Your task to perform on an android device: Open maps Image 0: 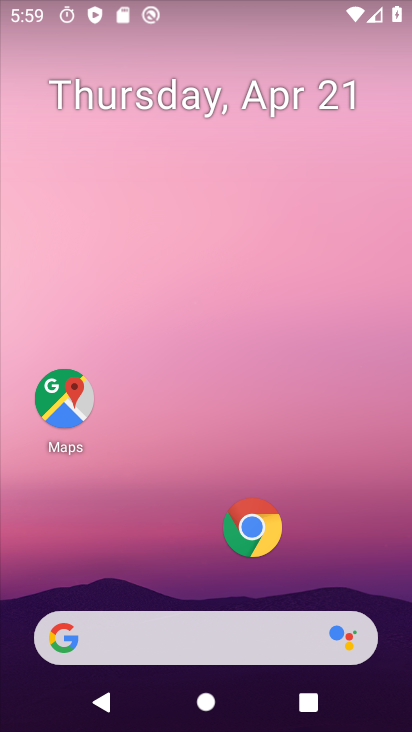
Step 0: click (71, 405)
Your task to perform on an android device: Open maps Image 1: 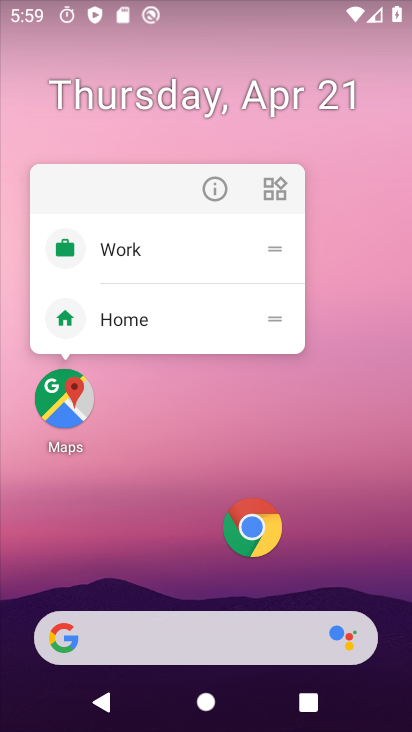
Step 1: click (71, 405)
Your task to perform on an android device: Open maps Image 2: 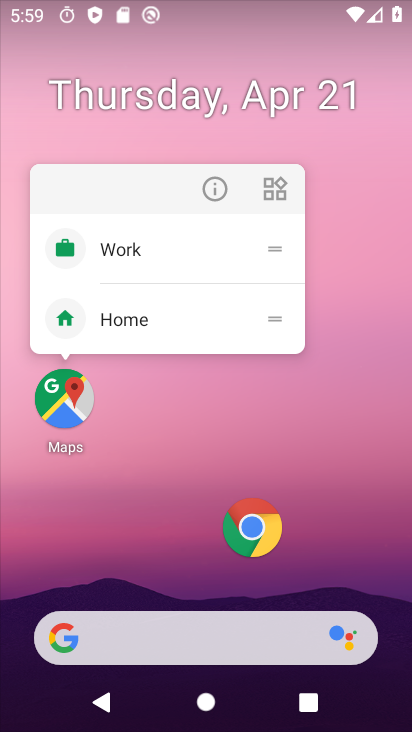
Step 2: click (51, 388)
Your task to perform on an android device: Open maps Image 3: 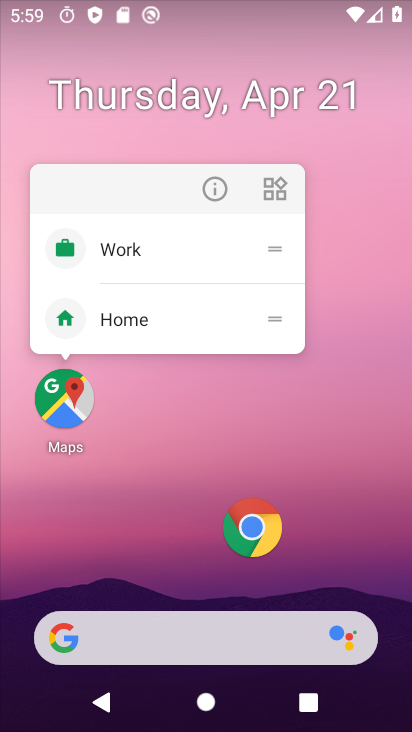
Step 3: click (55, 402)
Your task to perform on an android device: Open maps Image 4: 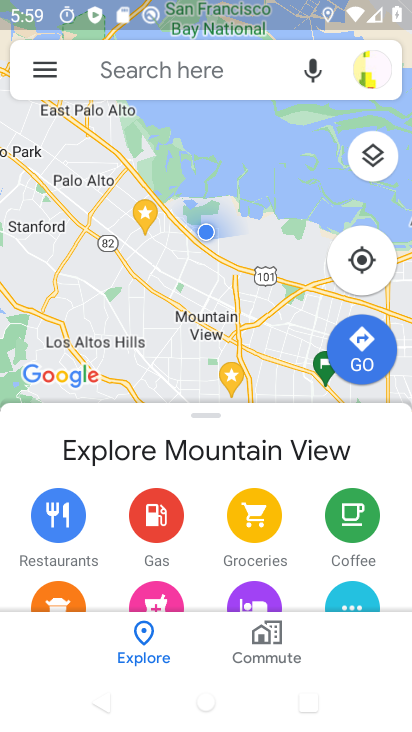
Step 4: task complete